Your task to perform on an android device: Open settings on Google Maps Image 0: 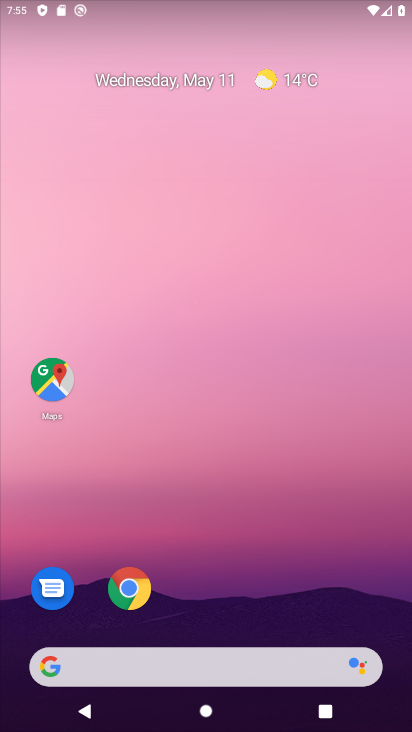
Step 0: click (43, 386)
Your task to perform on an android device: Open settings on Google Maps Image 1: 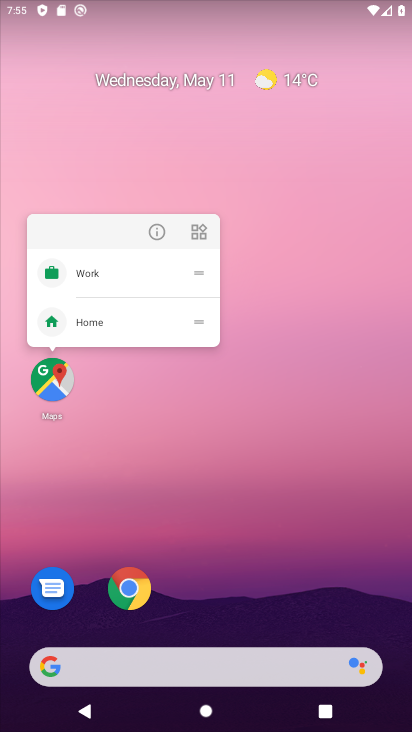
Step 1: click (38, 393)
Your task to perform on an android device: Open settings on Google Maps Image 2: 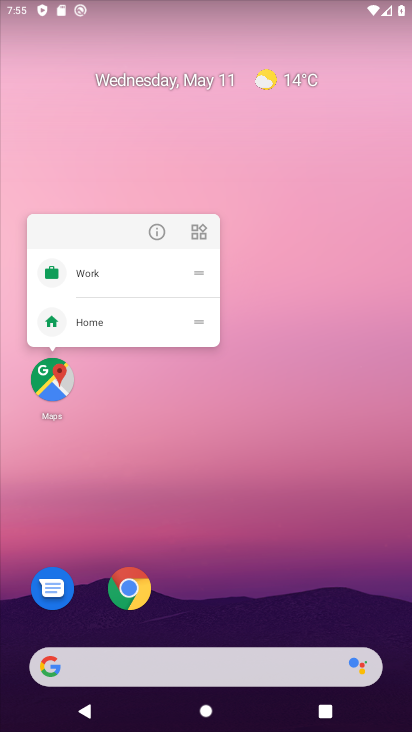
Step 2: click (44, 385)
Your task to perform on an android device: Open settings on Google Maps Image 3: 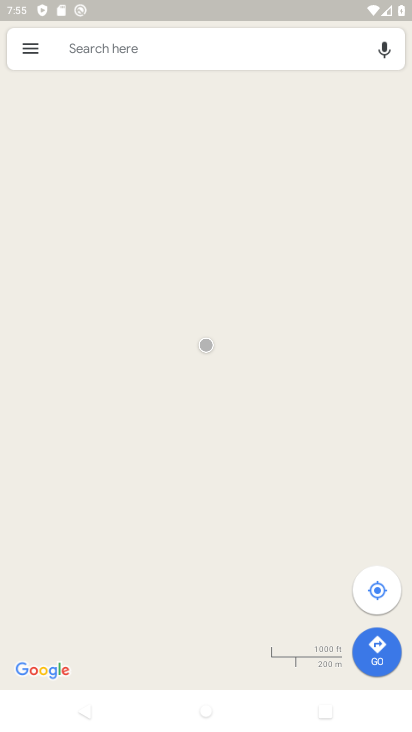
Step 3: click (22, 44)
Your task to perform on an android device: Open settings on Google Maps Image 4: 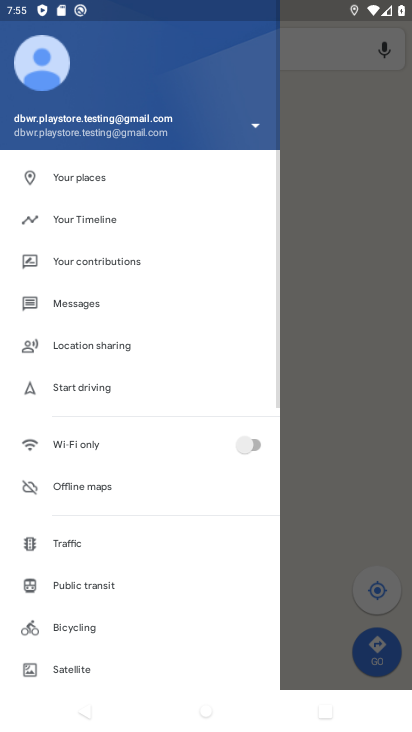
Step 4: drag from (123, 652) to (170, 427)
Your task to perform on an android device: Open settings on Google Maps Image 5: 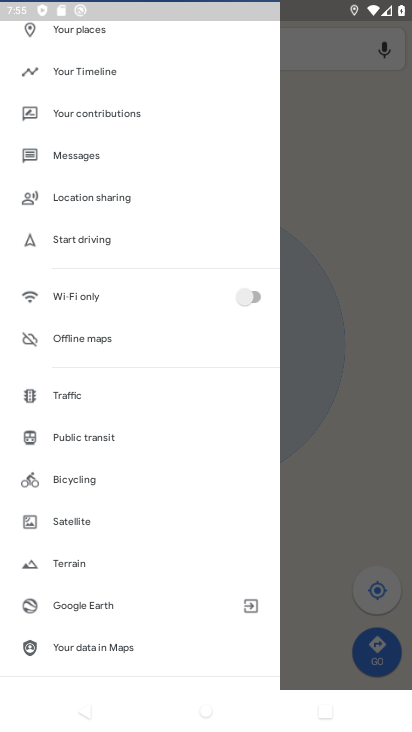
Step 5: drag from (127, 639) to (178, 342)
Your task to perform on an android device: Open settings on Google Maps Image 6: 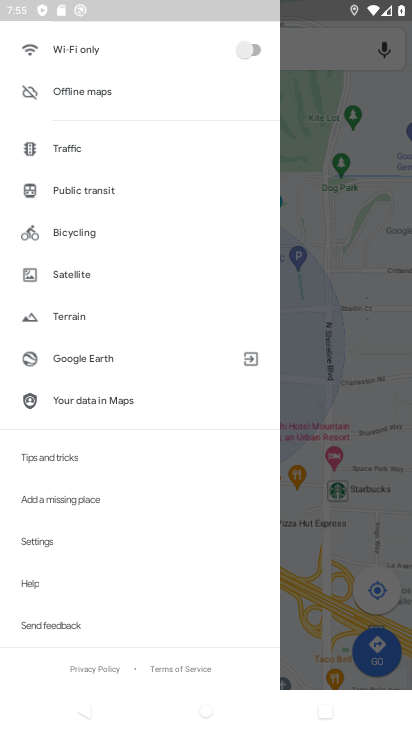
Step 6: click (89, 543)
Your task to perform on an android device: Open settings on Google Maps Image 7: 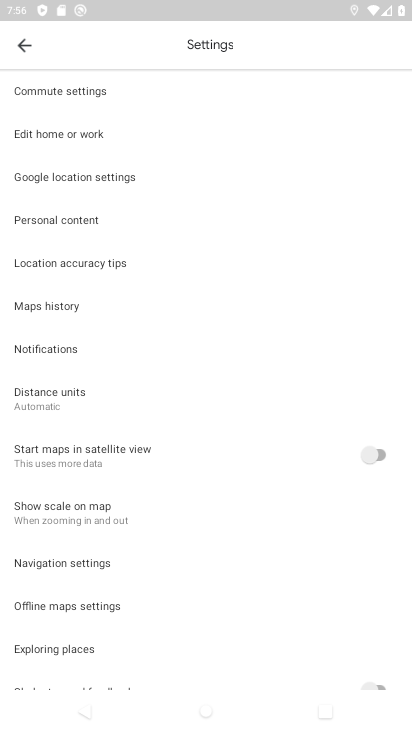
Step 7: task complete